Your task to perform on an android device: Go to ESPN.com Image 0: 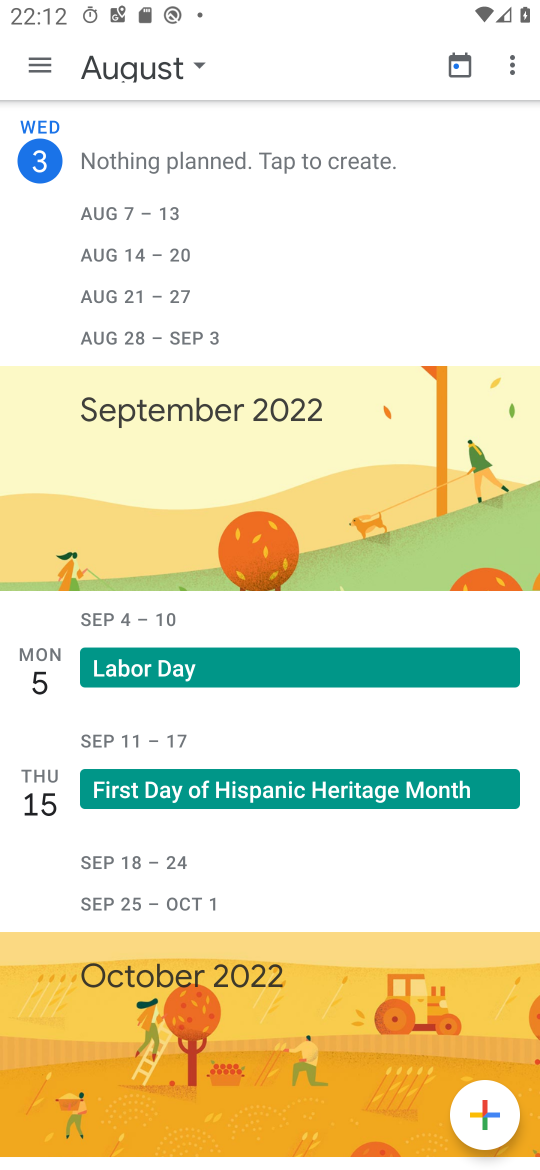
Step 0: press home button
Your task to perform on an android device: Go to ESPN.com Image 1: 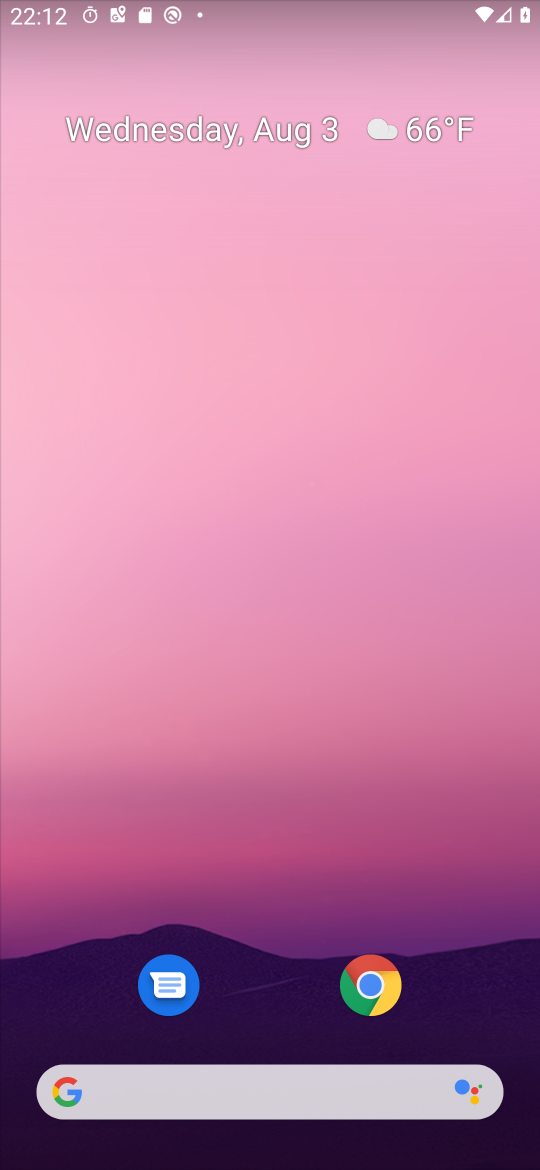
Step 1: click (343, 978)
Your task to perform on an android device: Go to ESPN.com Image 2: 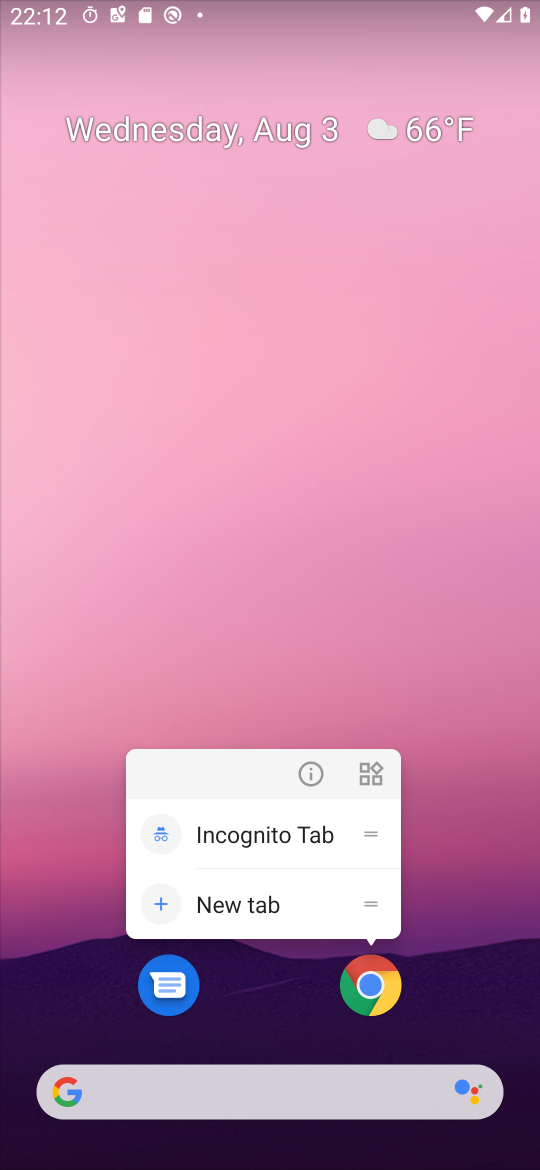
Step 2: click (348, 981)
Your task to perform on an android device: Go to ESPN.com Image 3: 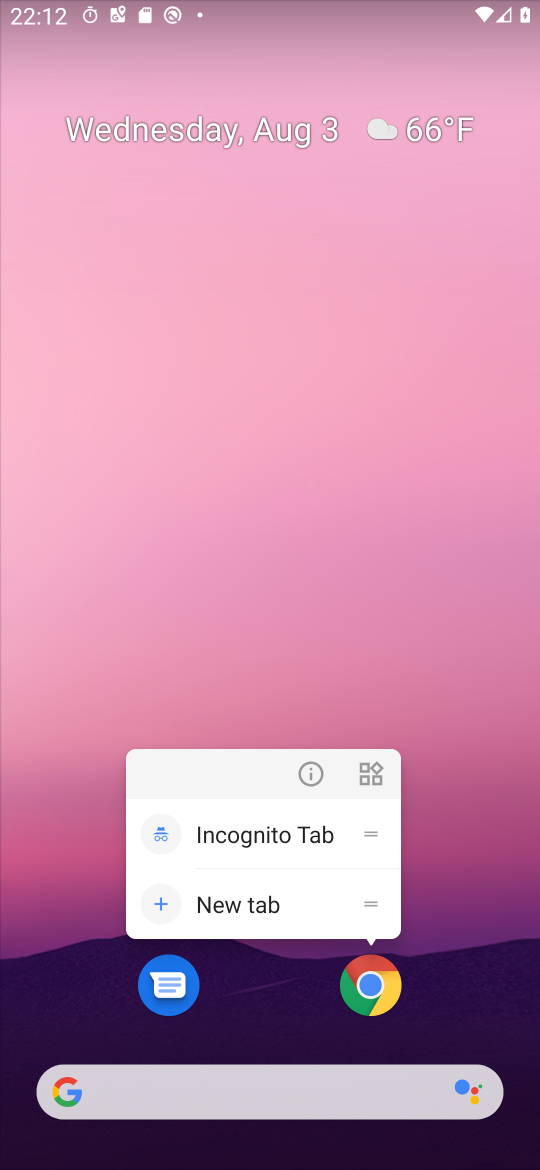
Step 3: click (348, 981)
Your task to perform on an android device: Go to ESPN.com Image 4: 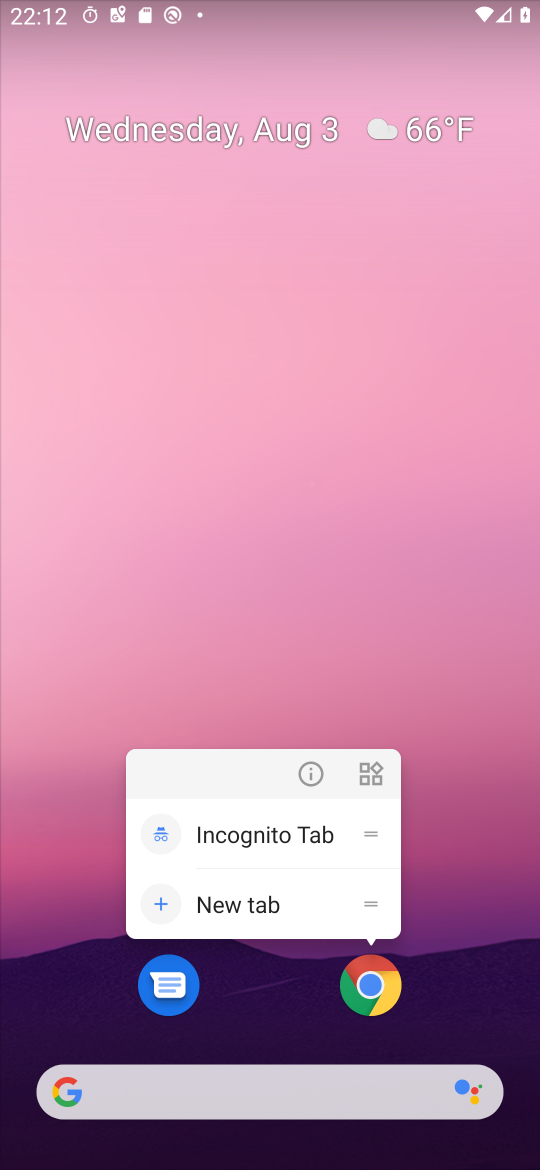
Step 4: click (348, 981)
Your task to perform on an android device: Go to ESPN.com Image 5: 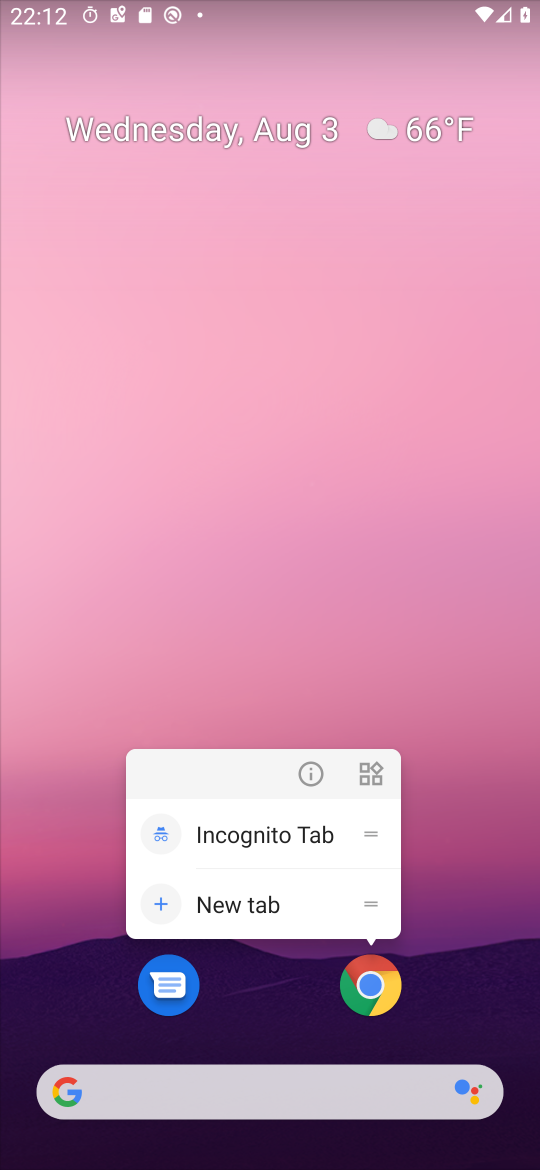
Step 5: click (367, 1008)
Your task to perform on an android device: Go to ESPN.com Image 6: 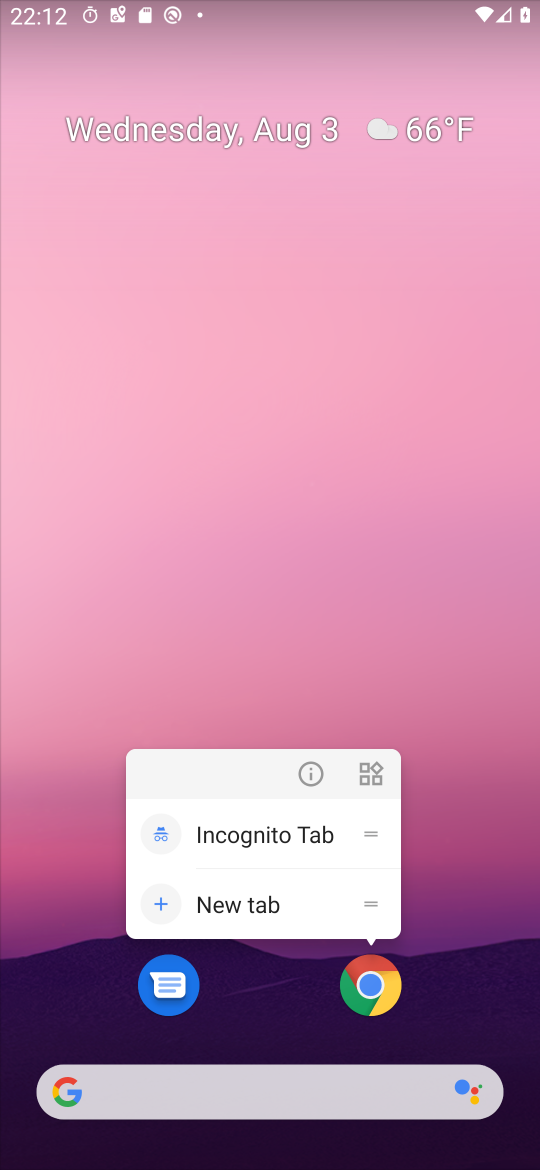
Step 6: click (367, 1008)
Your task to perform on an android device: Go to ESPN.com Image 7: 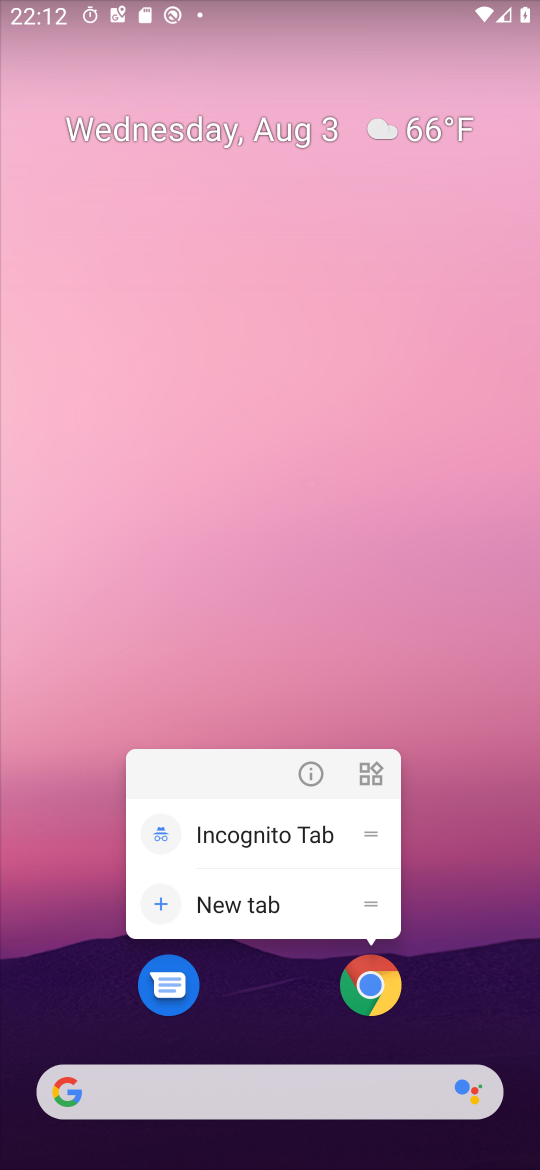
Step 7: click (367, 1008)
Your task to perform on an android device: Go to ESPN.com Image 8: 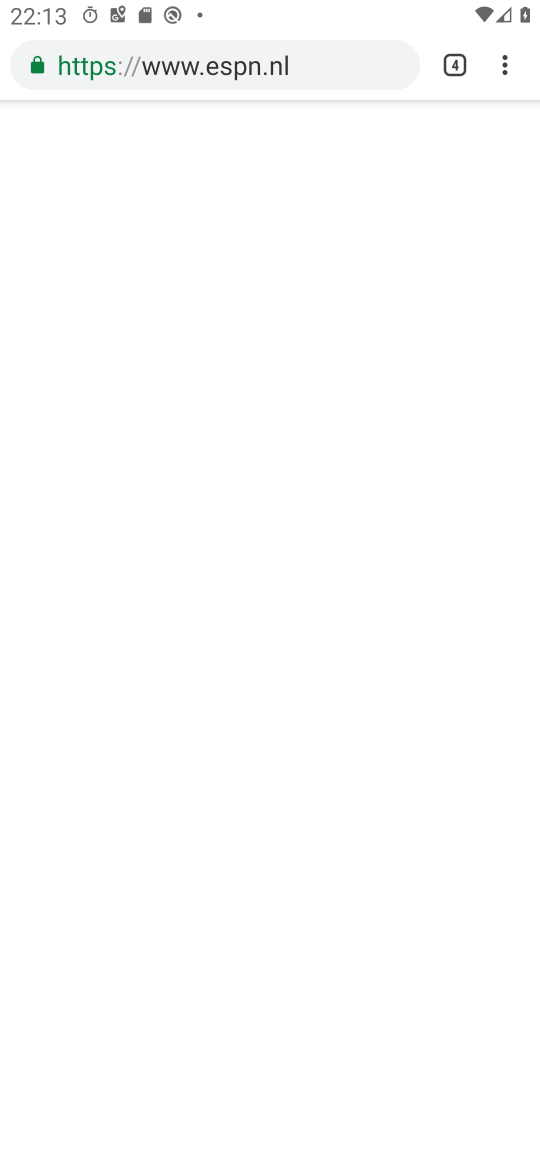
Step 8: click (451, 77)
Your task to perform on an android device: Go to ESPN.com Image 9: 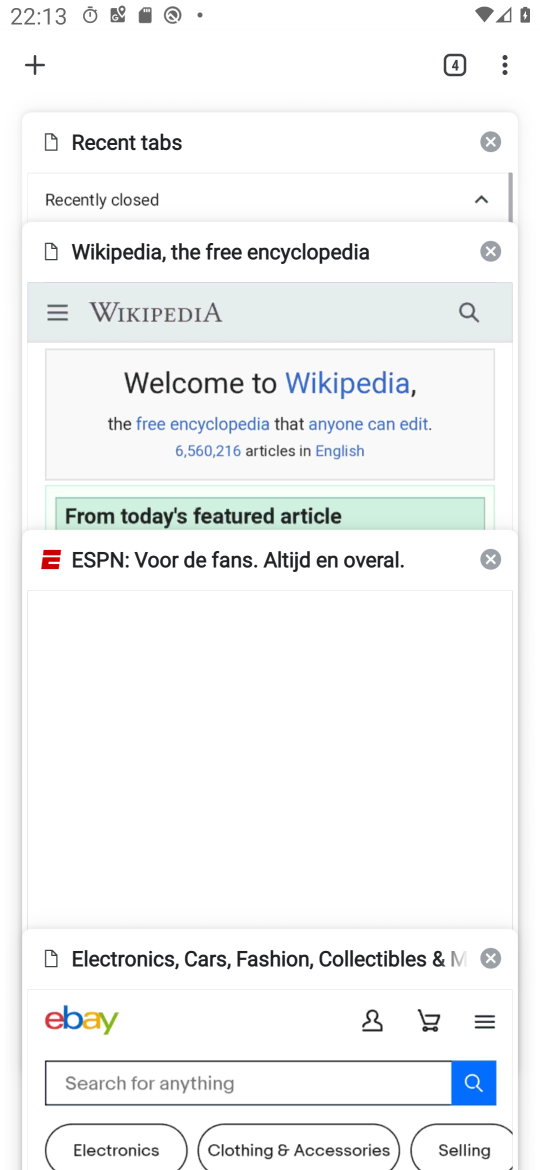
Step 9: click (26, 48)
Your task to perform on an android device: Go to ESPN.com Image 10: 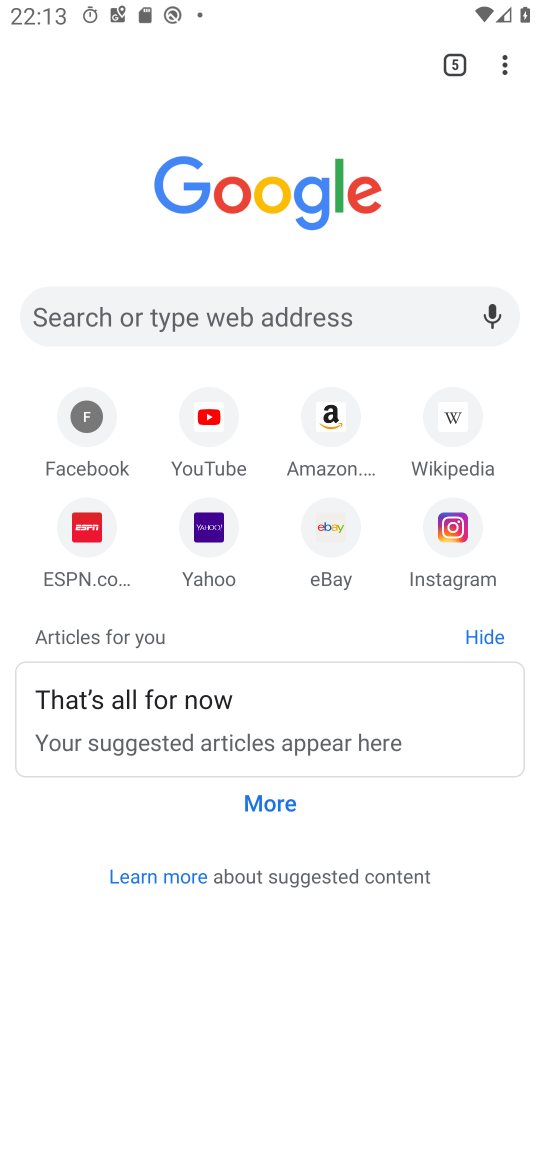
Step 10: click (94, 565)
Your task to perform on an android device: Go to ESPN.com Image 11: 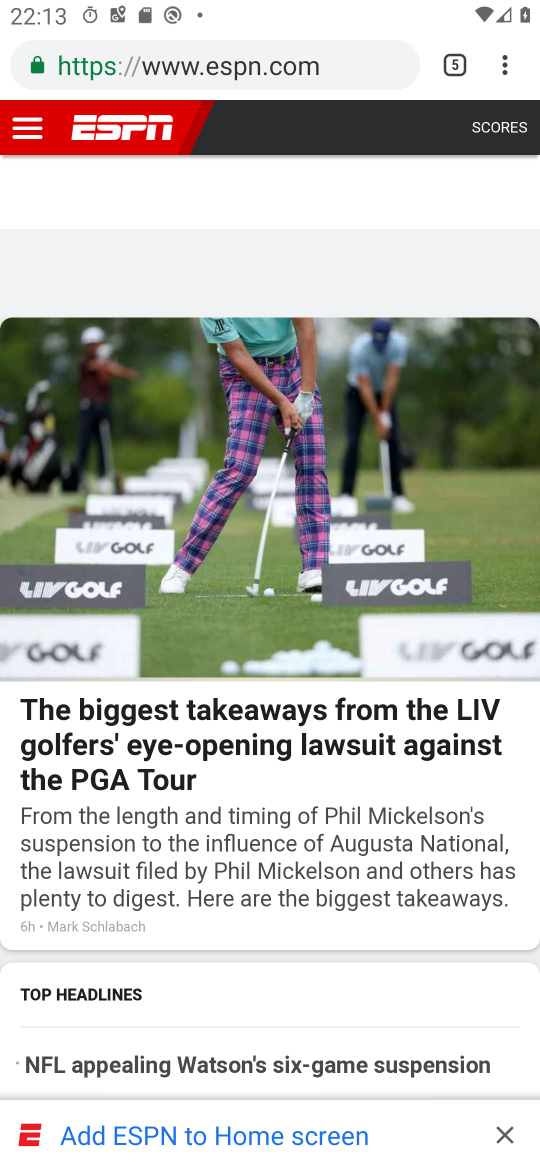
Step 11: task complete